Your task to perform on an android device: turn on airplane mode Image 0: 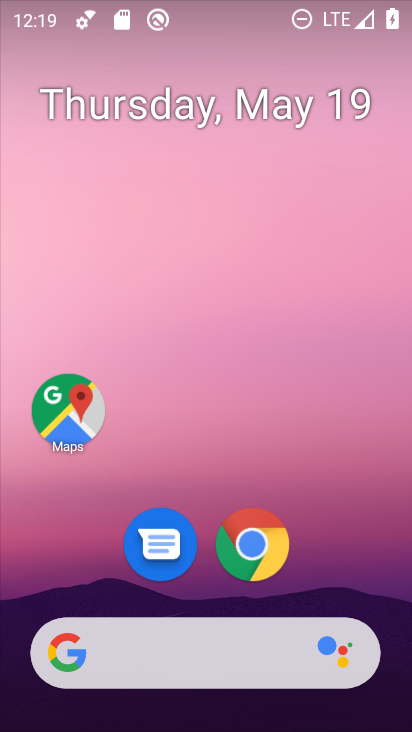
Step 0: drag from (320, 581) to (323, 51)
Your task to perform on an android device: turn on airplane mode Image 1: 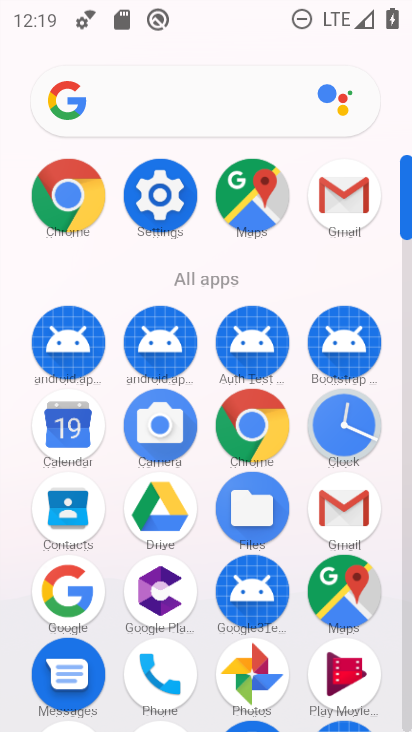
Step 1: click (145, 202)
Your task to perform on an android device: turn on airplane mode Image 2: 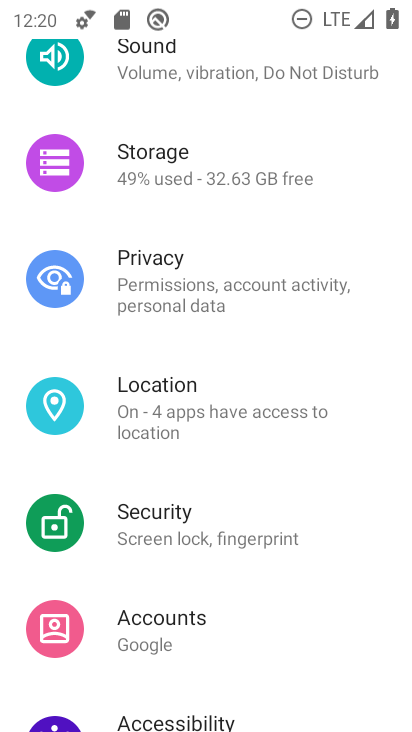
Step 2: drag from (224, 126) to (157, 602)
Your task to perform on an android device: turn on airplane mode Image 3: 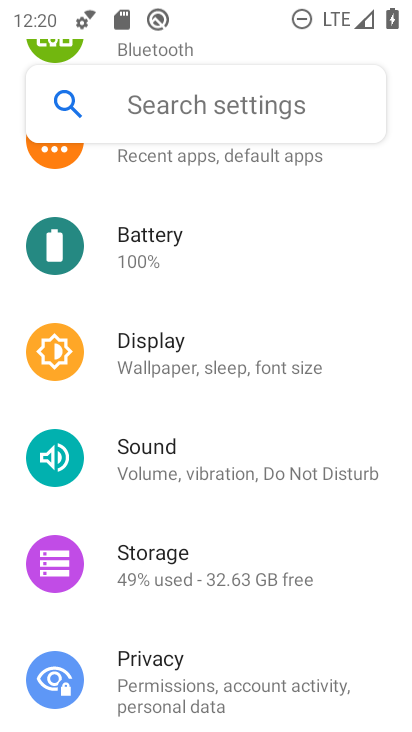
Step 3: drag from (201, 204) to (125, 625)
Your task to perform on an android device: turn on airplane mode Image 4: 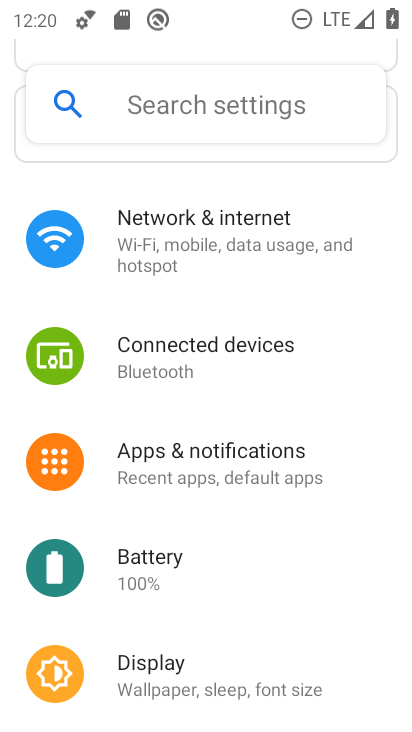
Step 4: click (156, 290)
Your task to perform on an android device: turn on airplane mode Image 5: 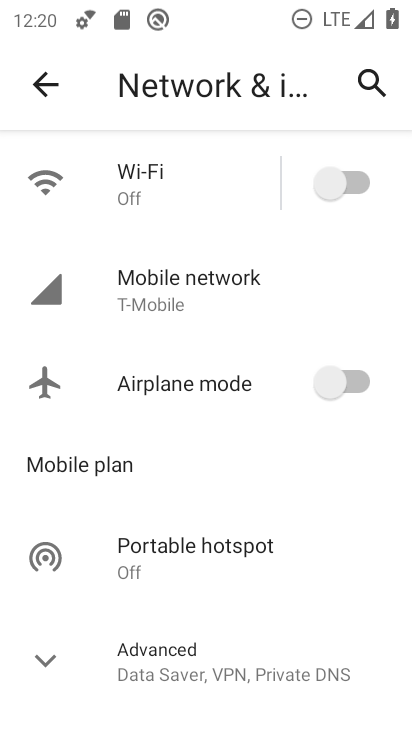
Step 5: click (263, 372)
Your task to perform on an android device: turn on airplane mode Image 6: 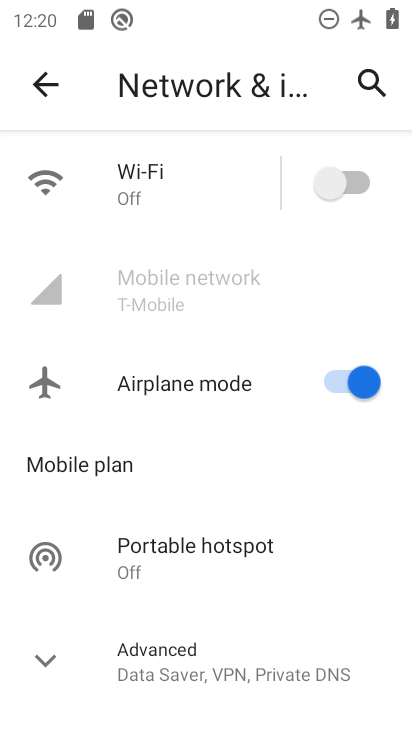
Step 6: click (329, 190)
Your task to perform on an android device: turn on airplane mode Image 7: 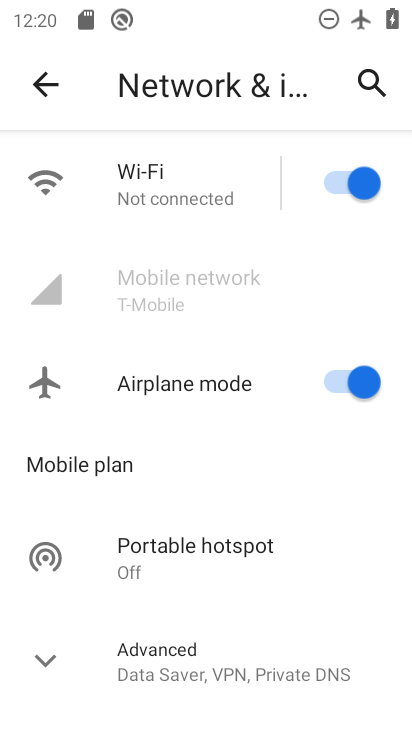
Step 7: task complete